Your task to perform on an android device: change alarm snooze length Image 0: 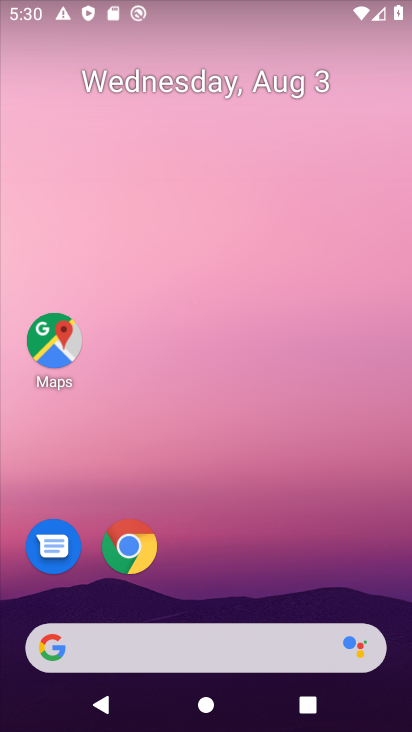
Step 0: drag from (227, 610) to (270, 99)
Your task to perform on an android device: change alarm snooze length Image 1: 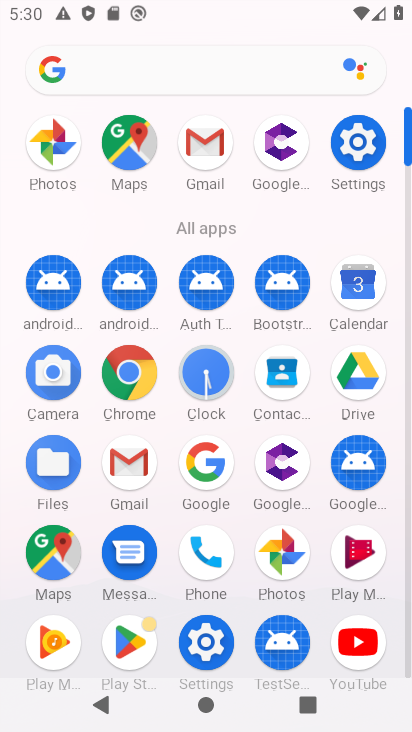
Step 1: click (213, 383)
Your task to perform on an android device: change alarm snooze length Image 2: 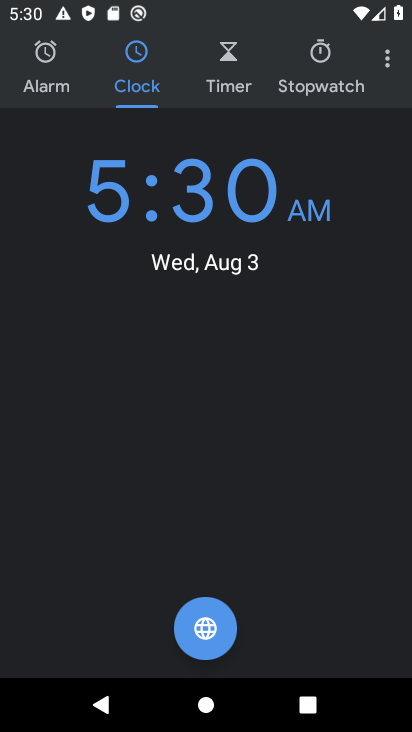
Step 2: click (386, 64)
Your task to perform on an android device: change alarm snooze length Image 3: 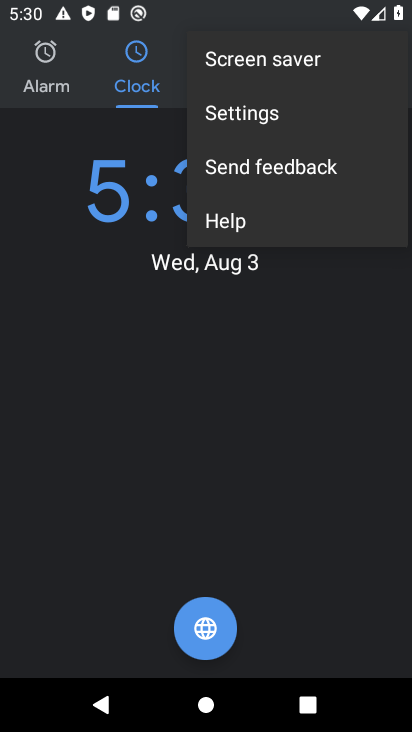
Step 3: click (241, 115)
Your task to perform on an android device: change alarm snooze length Image 4: 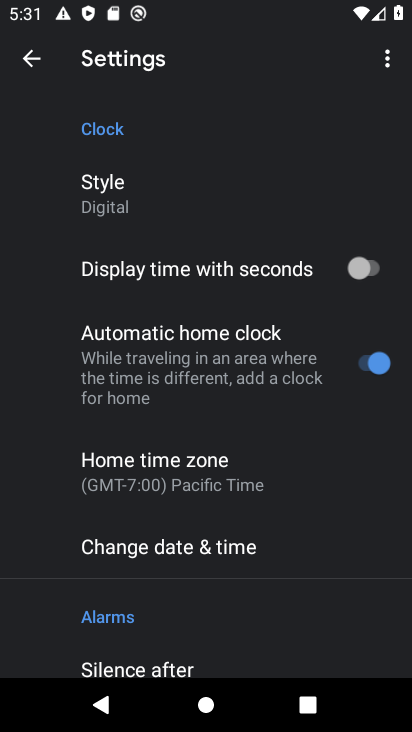
Step 4: drag from (317, 533) to (291, 252)
Your task to perform on an android device: change alarm snooze length Image 5: 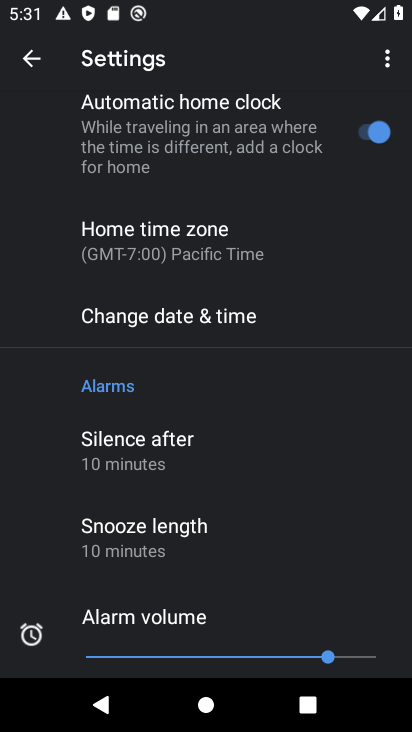
Step 5: click (144, 540)
Your task to perform on an android device: change alarm snooze length Image 6: 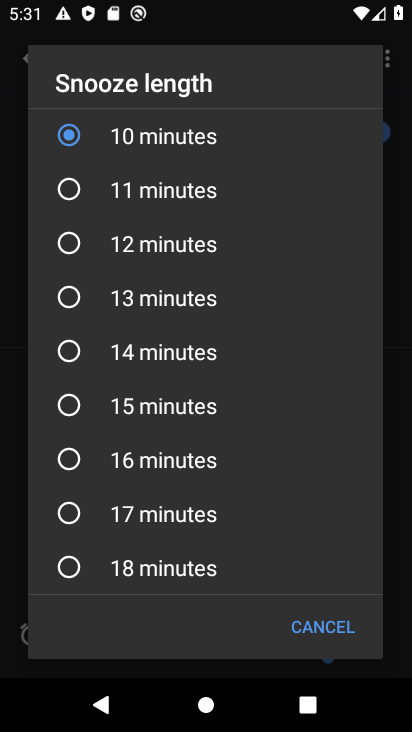
Step 6: click (66, 457)
Your task to perform on an android device: change alarm snooze length Image 7: 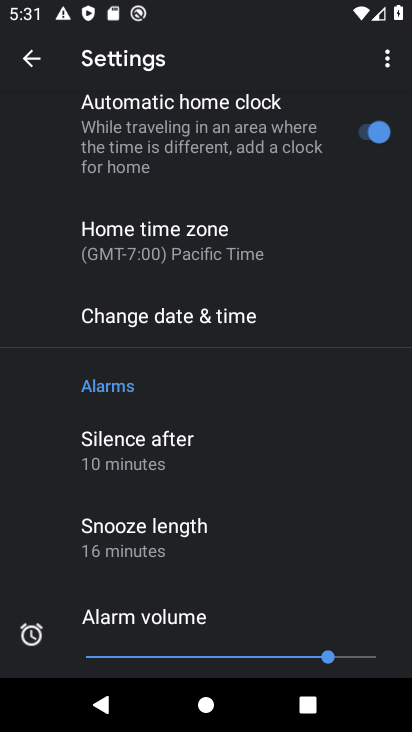
Step 7: task complete